Your task to perform on an android device: turn on the 24-hour format for clock Image 0: 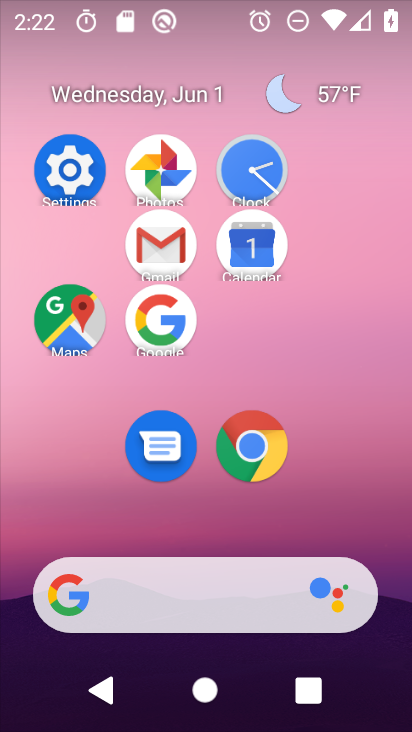
Step 0: click (255, 164)
Your task to perform on an android device: turn on the 24-hour format for clock Image 1: 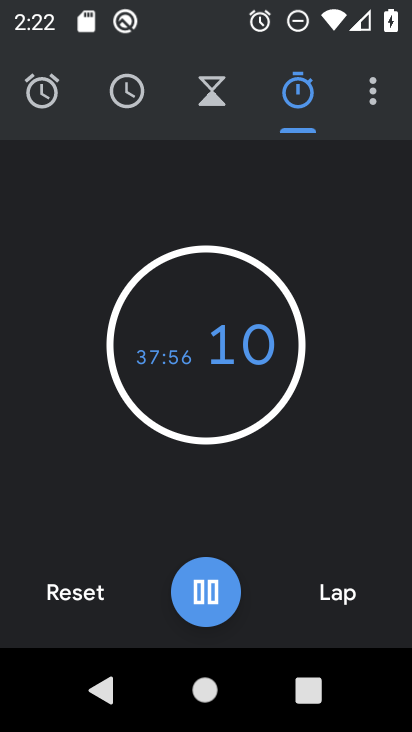
Step 1: click (364, 93)
Your task to perform on an android device: turn on the 24-hour format for clock Image 2: 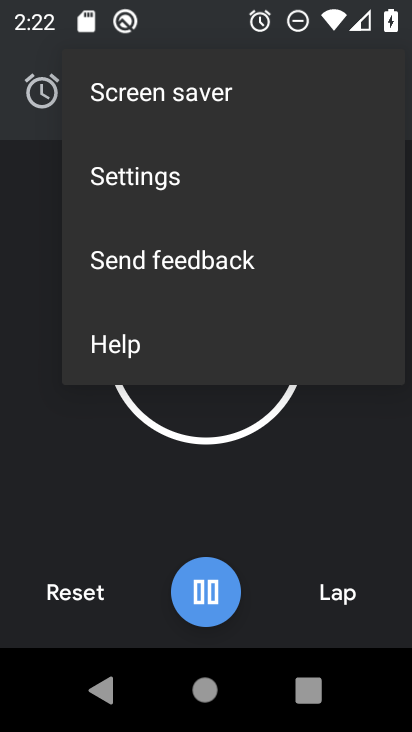
Step 2: click (147, 177)
Your task to perform on an android device: turn on the 24-hour format for clock Image 3: 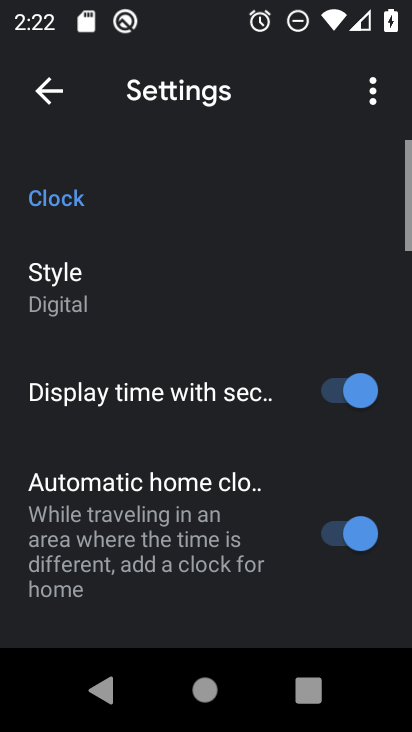
Step 3: drag from (183, 474) to (189, 124)
Your task to perform on an android device: turn on the 24-hour format for clock Image 4: 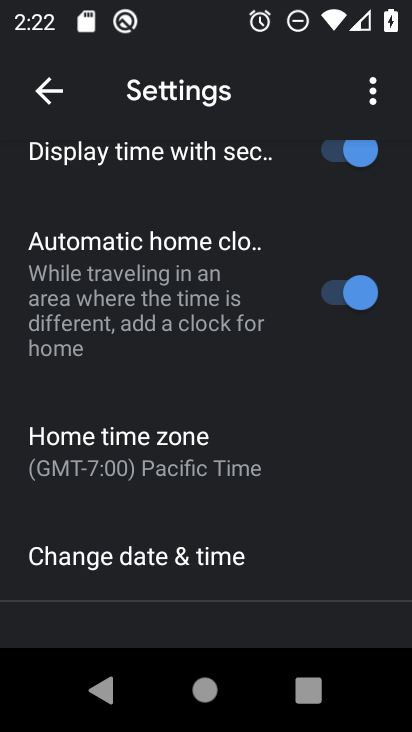
Step 4: drag from (220, 483) to (203, 113)
Your task to perform on an android device: turn on the 24-hour format for clock Image 5: 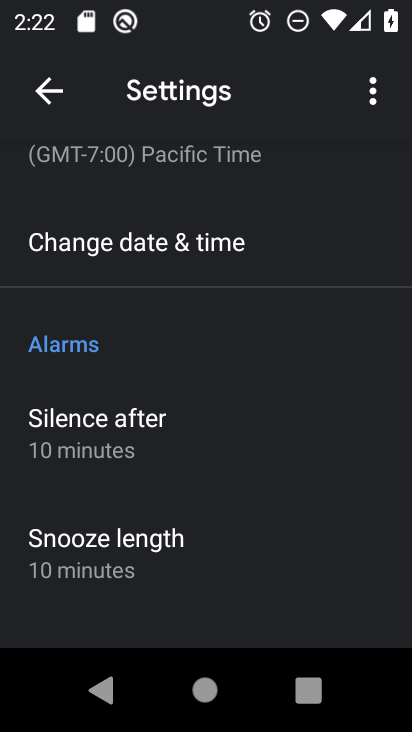
Step 5: click (193, 241)
Your task to perform on an android device: turn on the 24-hour format for clock Image 6: 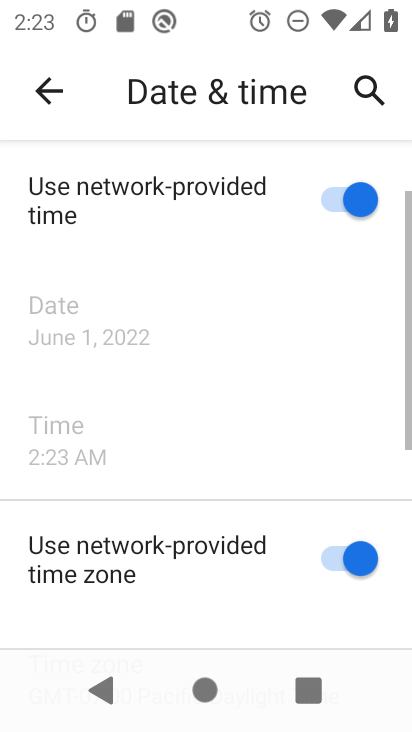
Step 6: drag from (212, 521) to (211, 178)
Your task to perform on an android device: turn on the 24-hour format for clock Image 7: 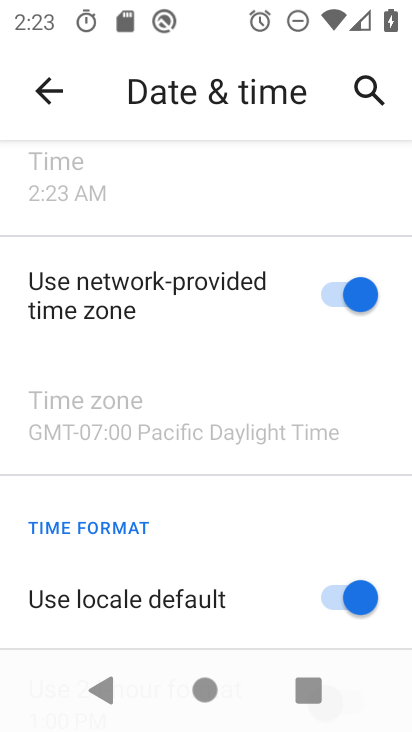
Step 7: drag from (212, 581) to (202, 146)
Your task to perform on an android device: turn on the 24-hour format for clock Image 8: 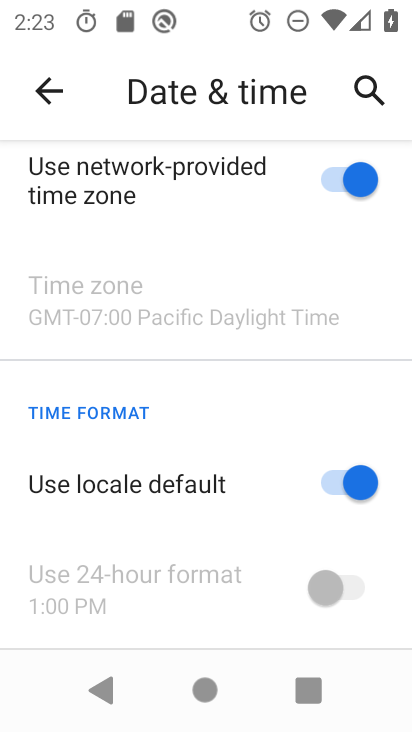
Step 8: drag from (221, 551) to (237, 180)
Your task to perform on an android device: turn on the 24-hour format for clock Image 9: 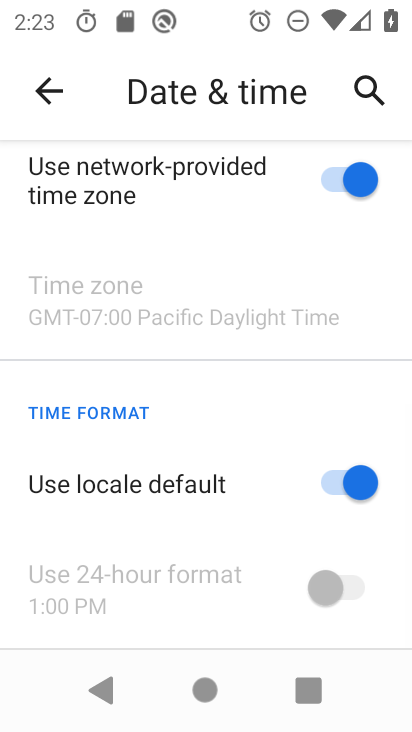
Step 9: click (358, 482)
Your task to perform on an android device: turn on the 24-hour format for clock Image 10: 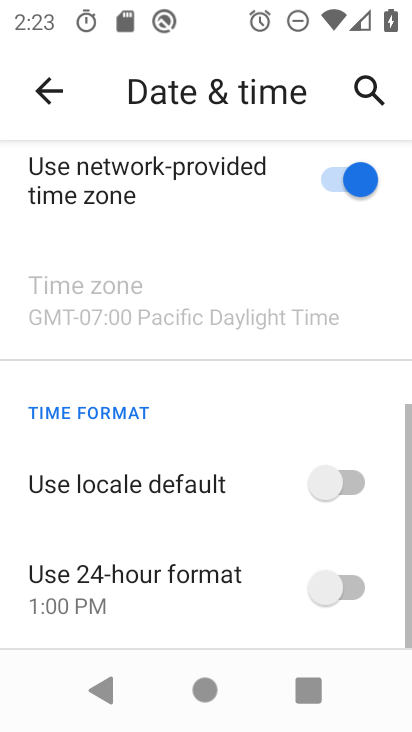
Step 10: click (325, 601)
Your task to perform on an android device: turn on the 24-hour format for clock Image 11: 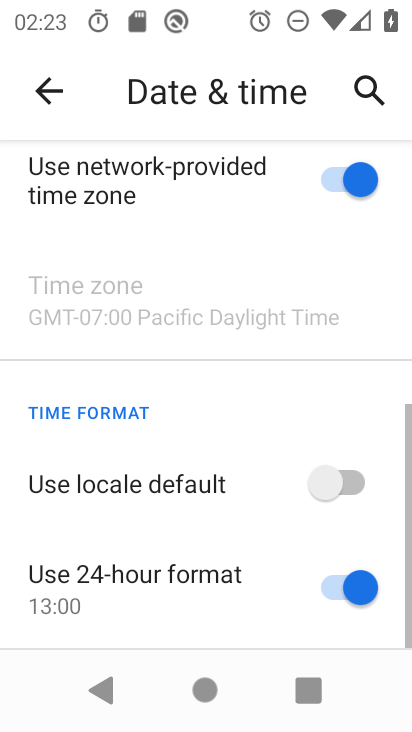
Step 11: task complete